Your task to perform on an android device: Open Google Image 0: 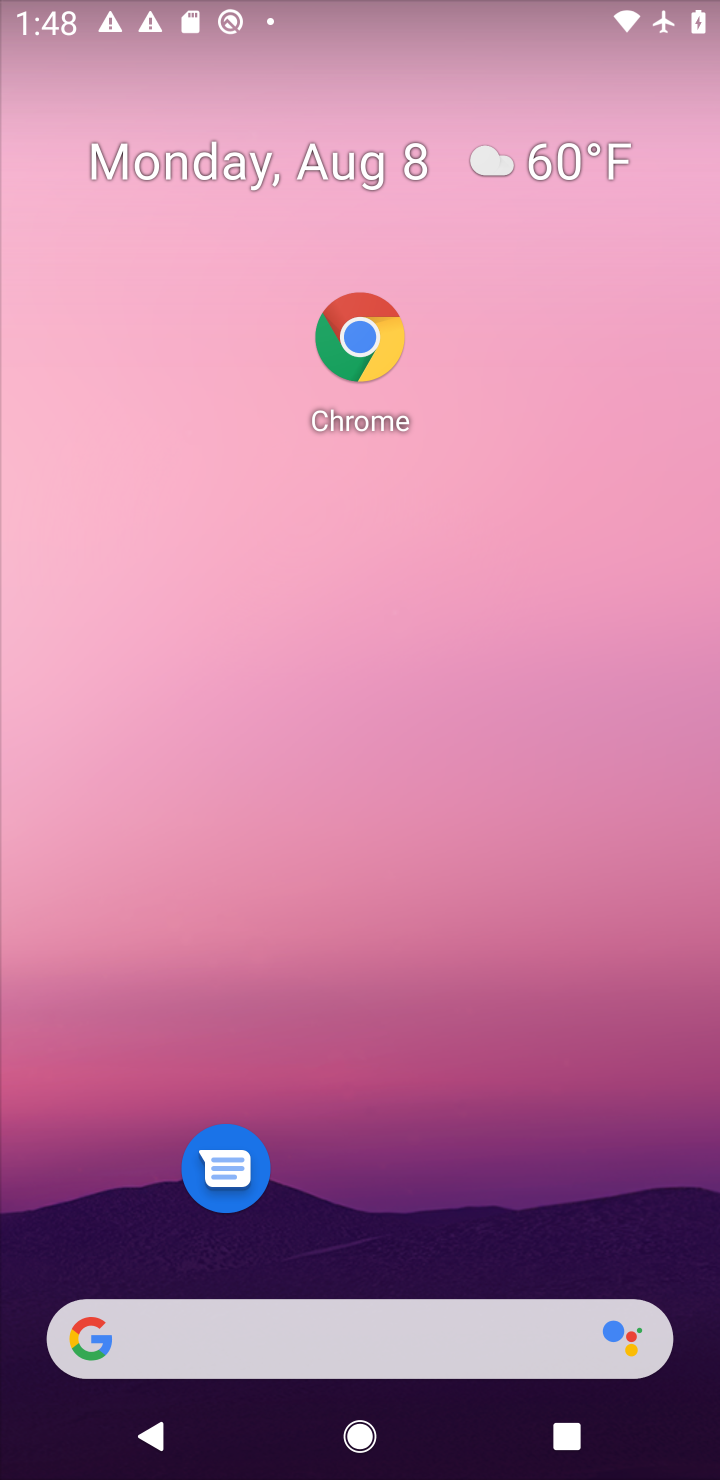
Step 0: click (411, 1320)
Your task to perform on an android device: Open Google Image 1: 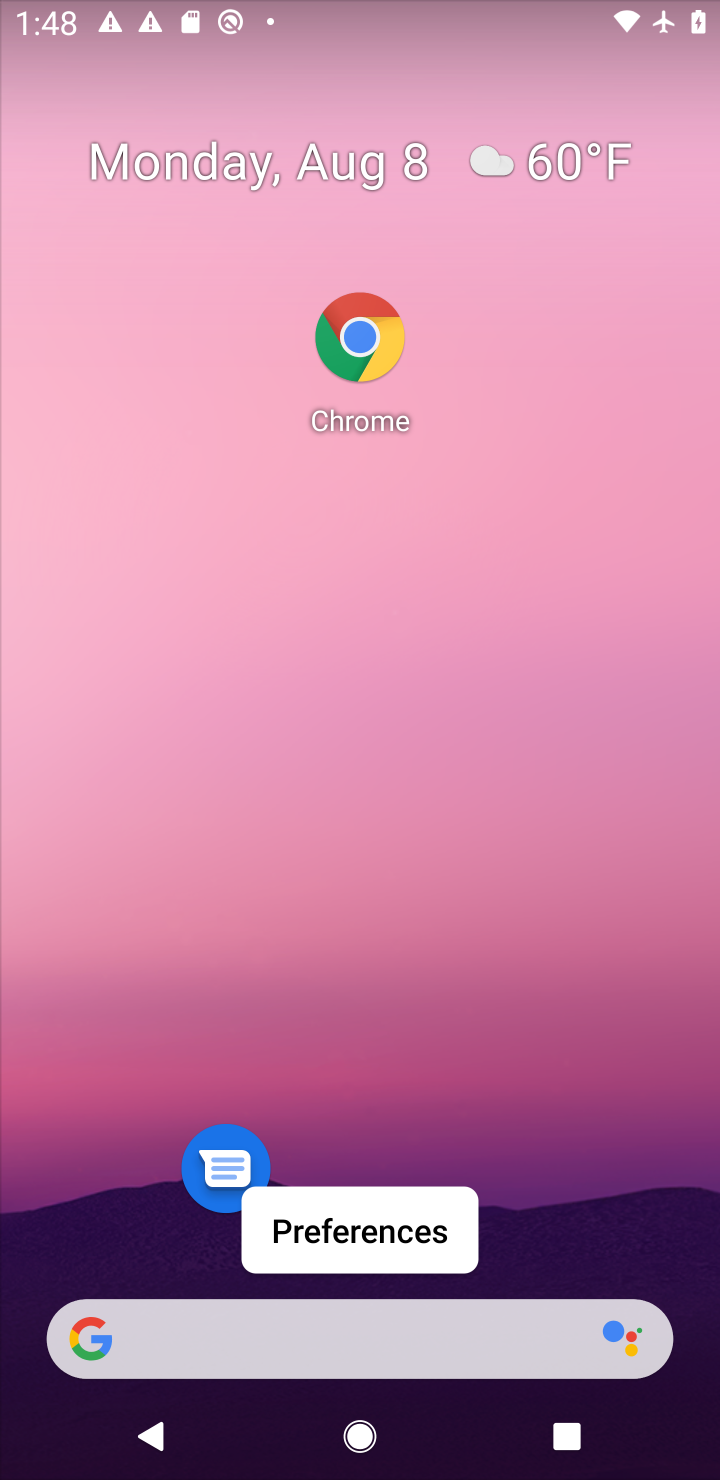
Step 1: click (411, 1320)
Your task to perform on an android device: Open Google Image 2: 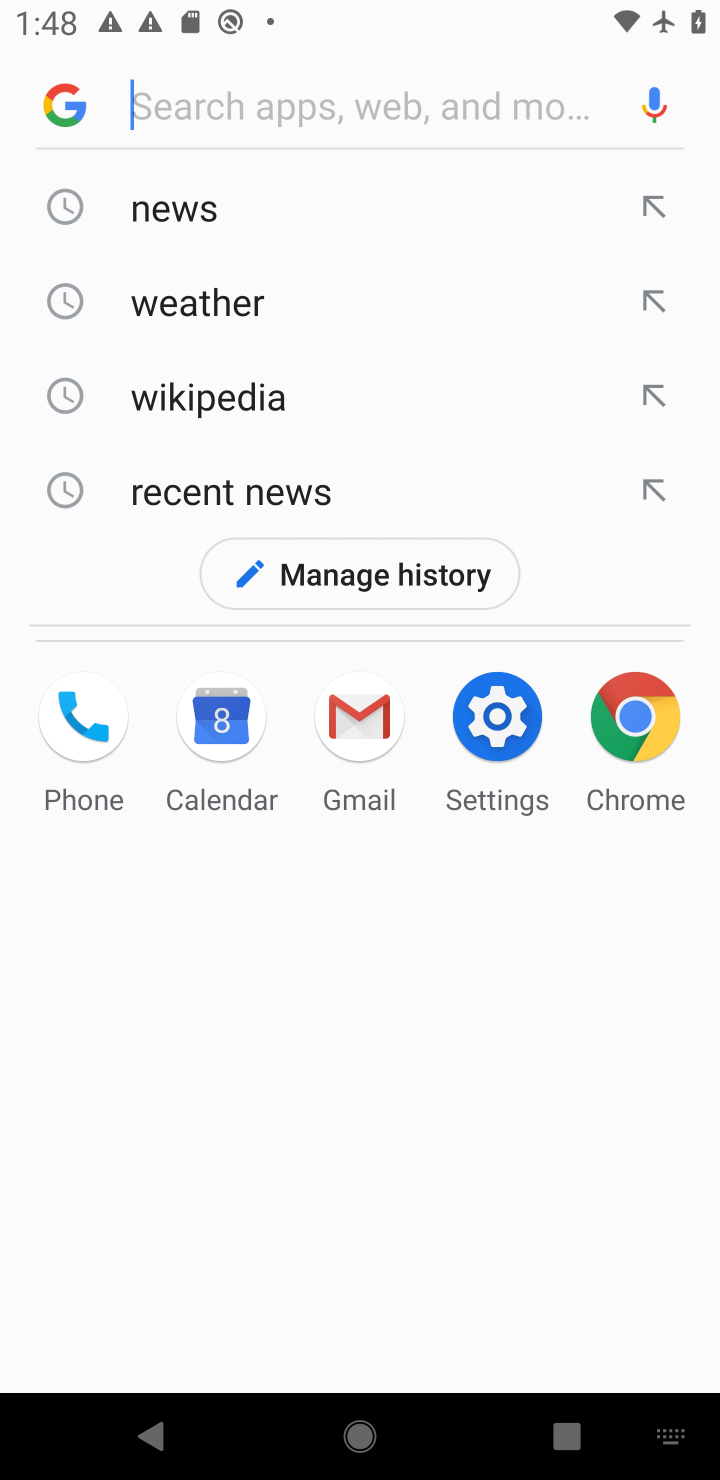
Step 2: click (250, 487)
Your task to perform on an android device: Open Google Image 3: 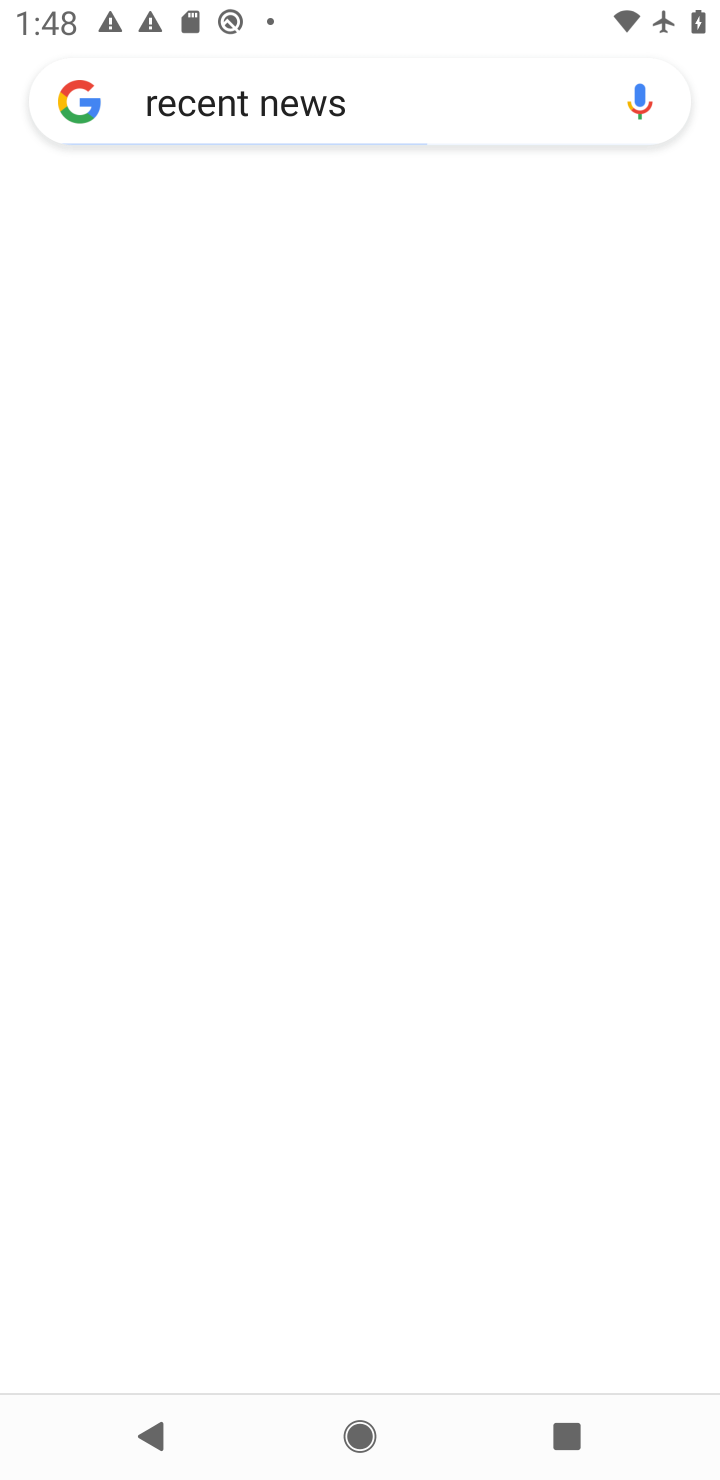
Step 3: task complete